Your task to perform on an android device: Open the web browser Image 0: 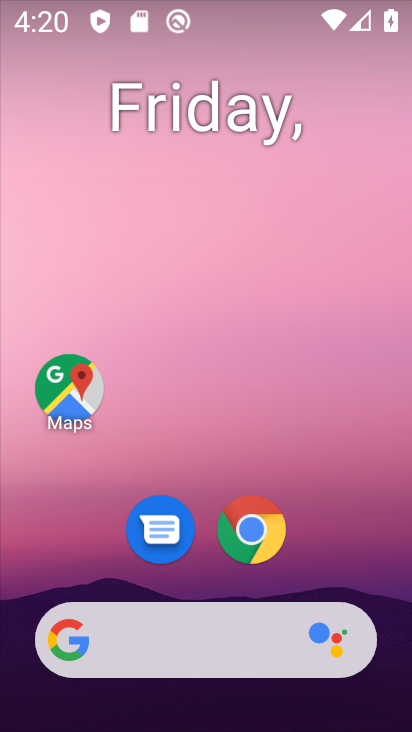
Step 0: drag from (282, 310) to (289, 38)
Your task to perform on an android device: Open the web browser Image 1: 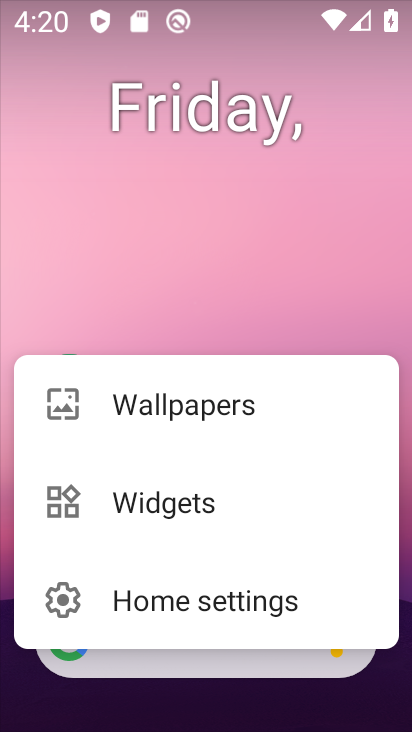
Step 1: click (272, 266)
Your task to perform on an android device: Open the web browser Image 2: 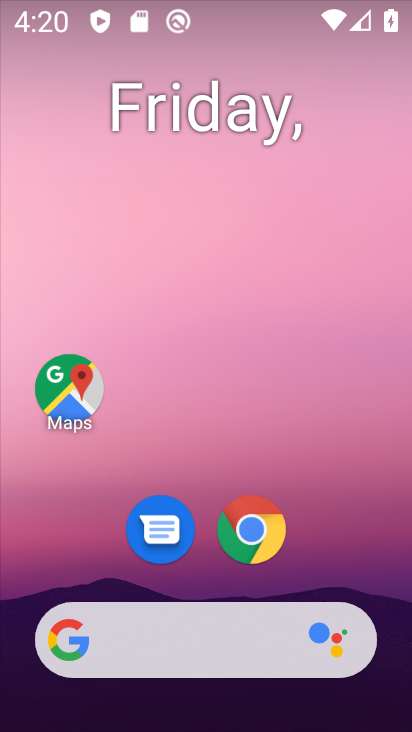
Step 2: click (259, 552)
Your task to perform on an android device: Open the web browser Image 3: 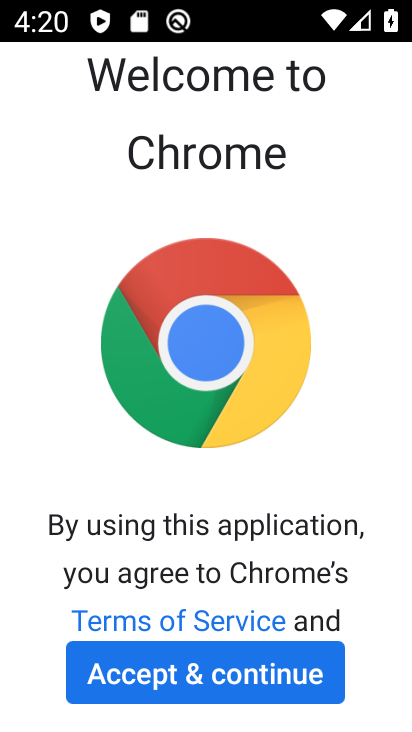
Step 3: click (157, 668)
Your task to perform on an android device: Open the web browser Image 4: 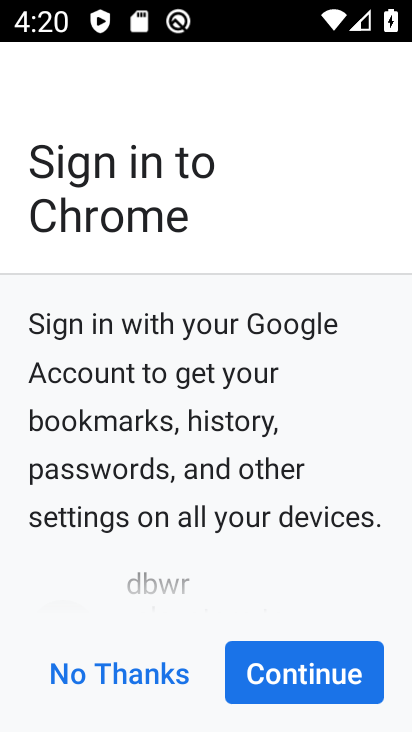
Step 4: click (280, 685)
Your task to perform on an android device: Open the web browser Image 5: 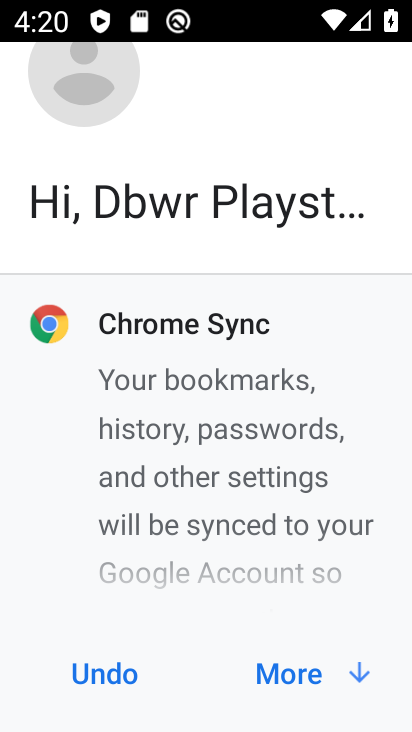
Step 5: click (284, 682)
Your task to perform on an android device: Open the web browser Image 6: 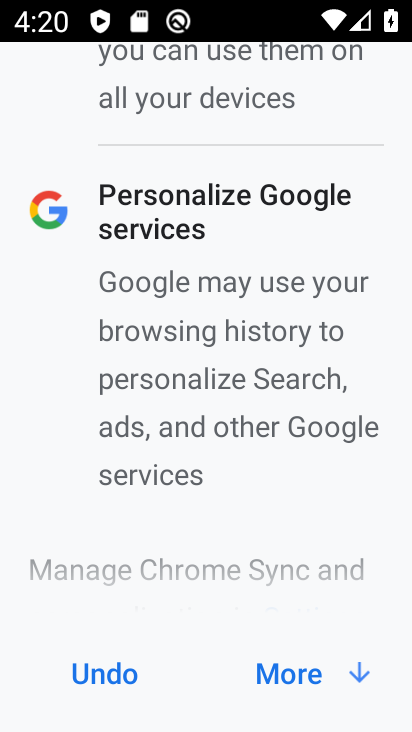
Step 6: click (284, 682)
Your task to perform on an android device: Open the web browser Image 7: 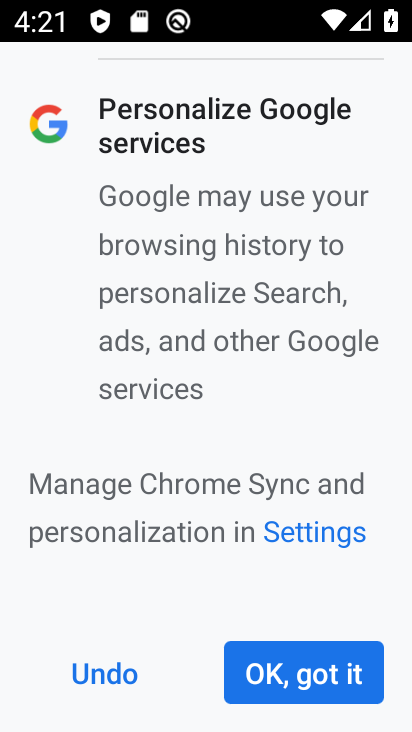
Step 7: click (284, 682)
Your task to perform on an android device: Open the web browser Image 8: 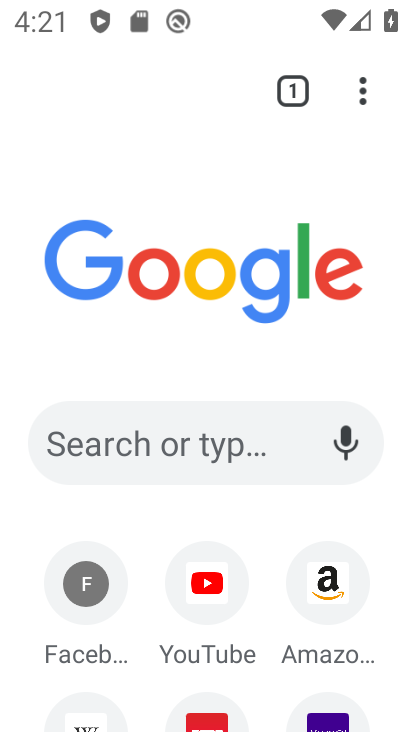
Step 8: task complete